Your task to perform on an android device: turn off priority inbox in the gmail app Image 0: 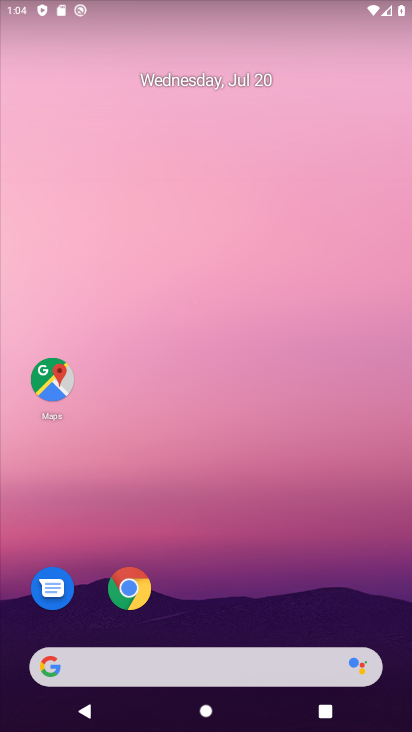
Step 0: drag from (291, 628) to (223, 231)
Your task to perform on an android device: turn off priority inbox in the gmail app Image 1: 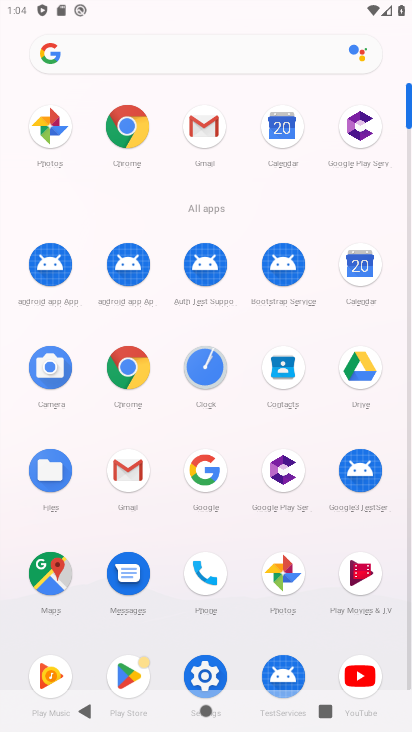
Step 1: click (212, 128)
Your task to perform on an android device: turn off priority inbox in the gmail app Image 2: 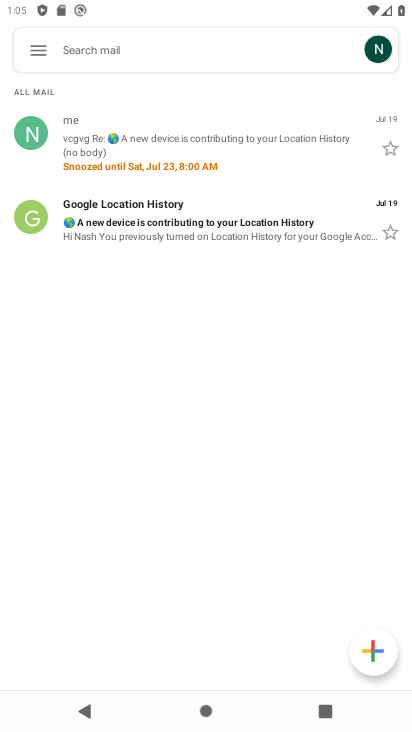
Step 2: click (37, 51)
Your task to perform on an android device: turn off priority inbox in the gmail app Image 3: 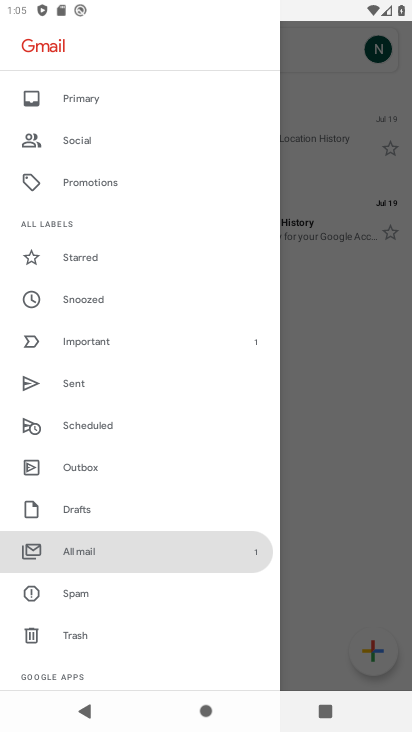
Step 3: drag from (141, 644) to (135, 266)
Your task to perform on an android device: turn off priority inbox in the gmail app Image 4: 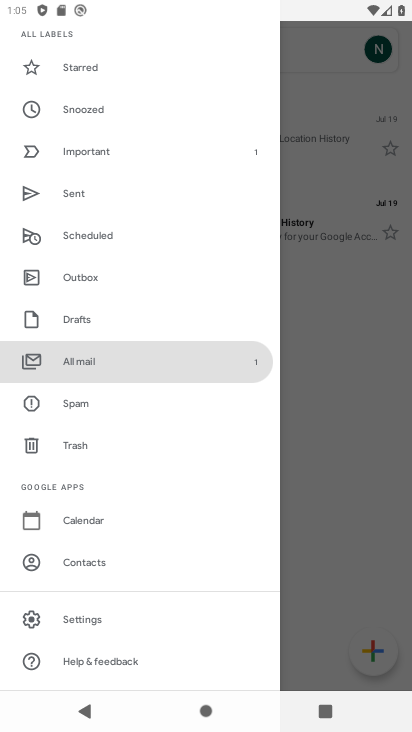
Step 4: click (151, 626)
Your task to perform on an android device: turn off priority inbox in the gmail app Image 5: 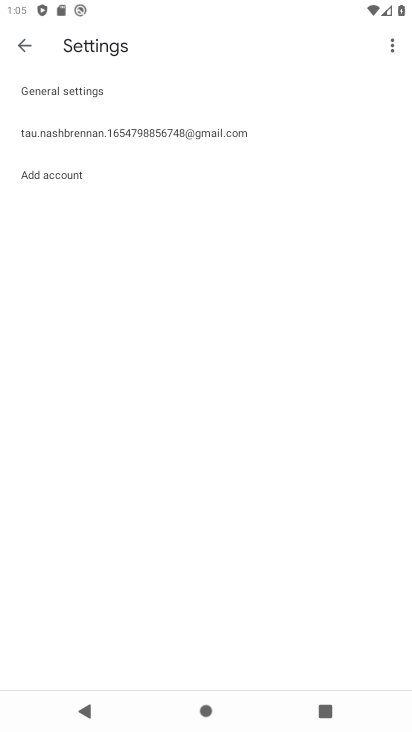
Step 5: click (284, 138)
Your task to perform on an android device: turn off priority inbox in the gmail app Image 6: 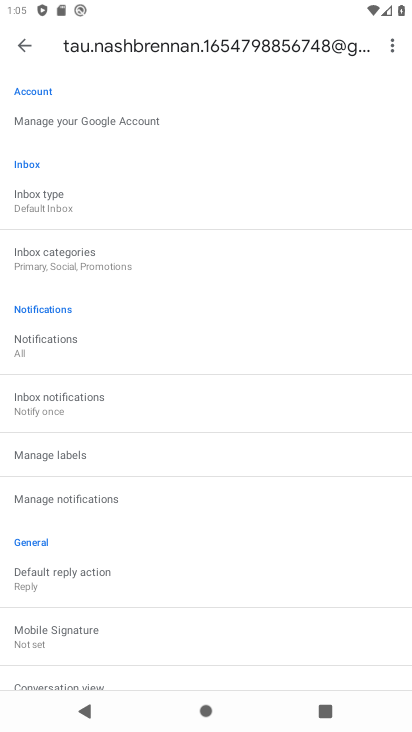
Step 6: click (273, 200)
Your task to perform on an android device: turn off priority inbox in the gmail app Image 7: 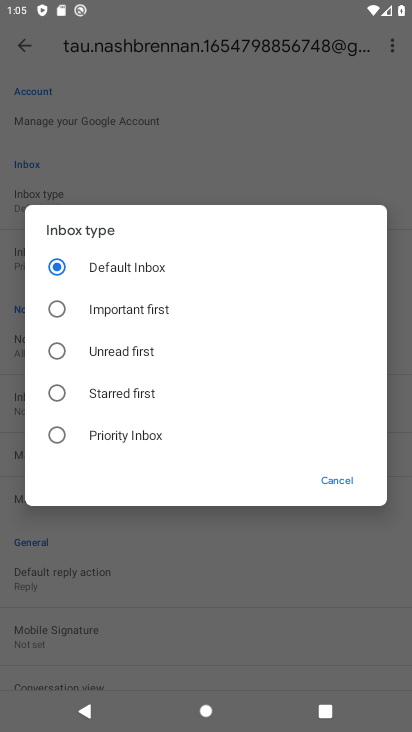
Step 7: task complete